Your task to perform on an android device: find which apps use the phone's location Image 0: 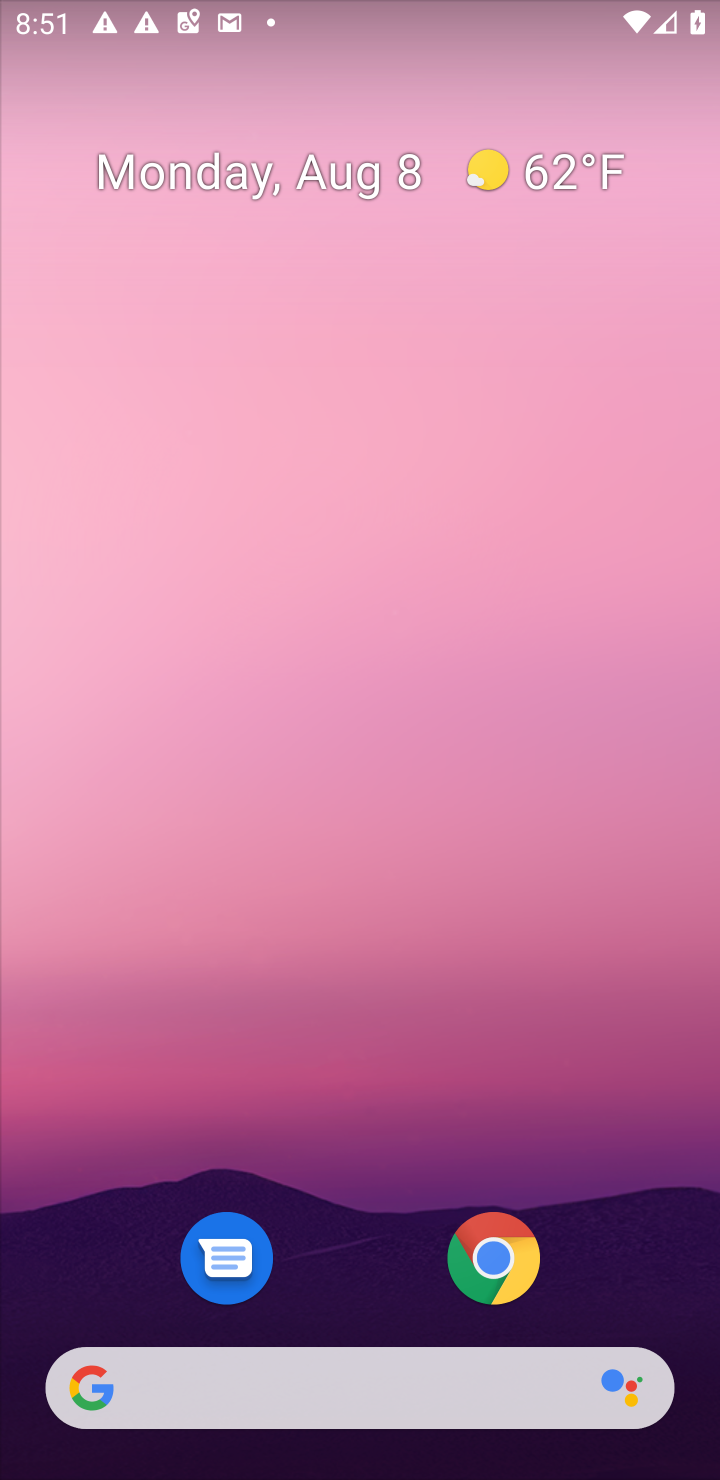
Step 0: drag from (308, 1081) to (464, 246)
Your task to perform on an android device: find which apps use the phone's location Image 1: 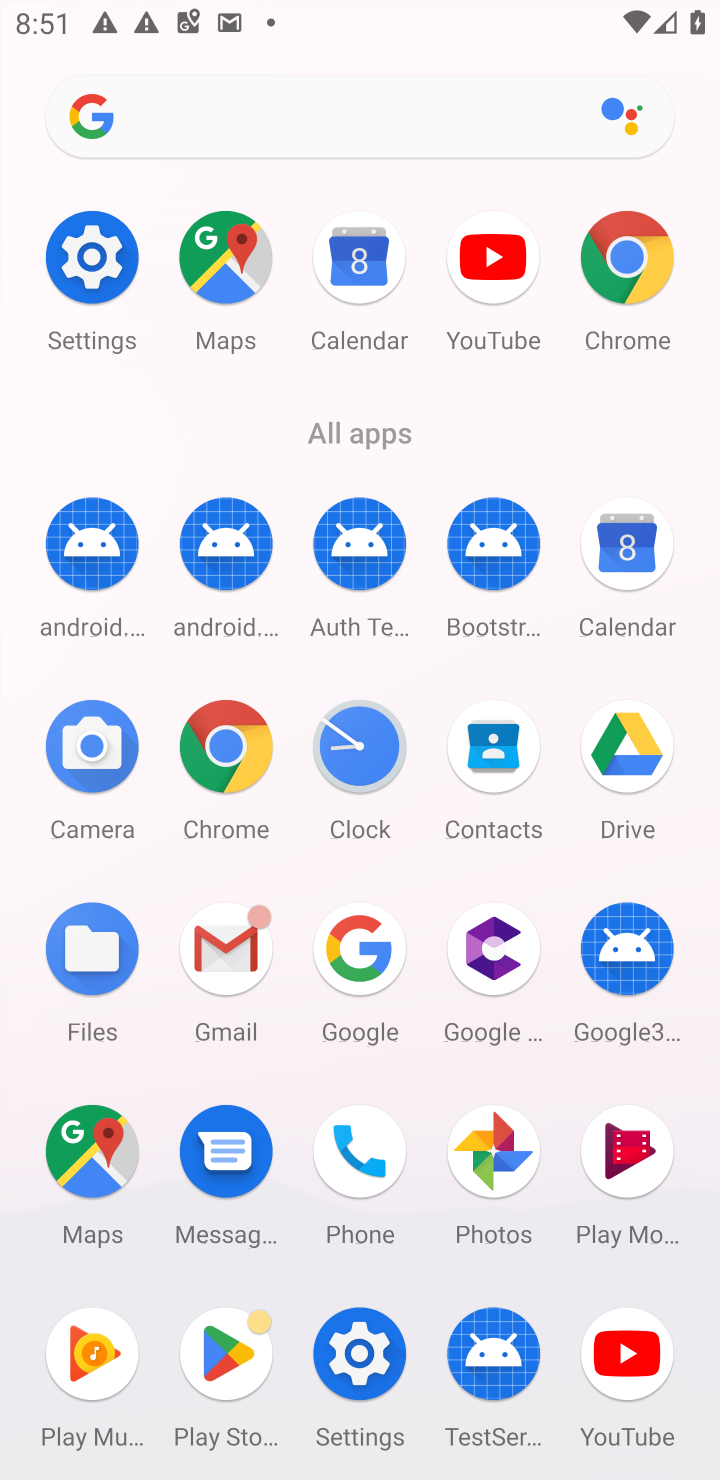
Step 1: click (343, 1340)
Your task to perform on an android device: find which apps use the phone's location Image 2: 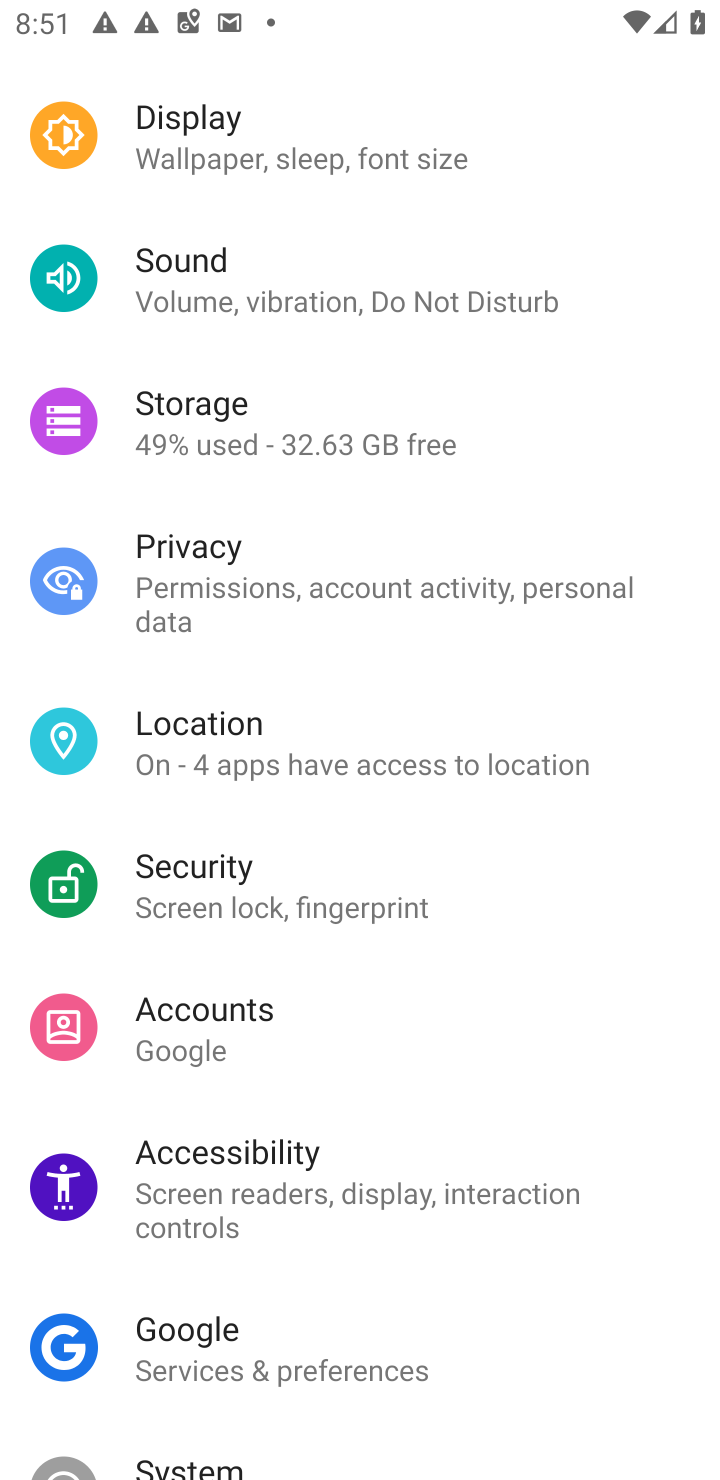
Step 2: click (316, 742)
Your task to perform on an android device: find which apps use the phone's location Image 3: 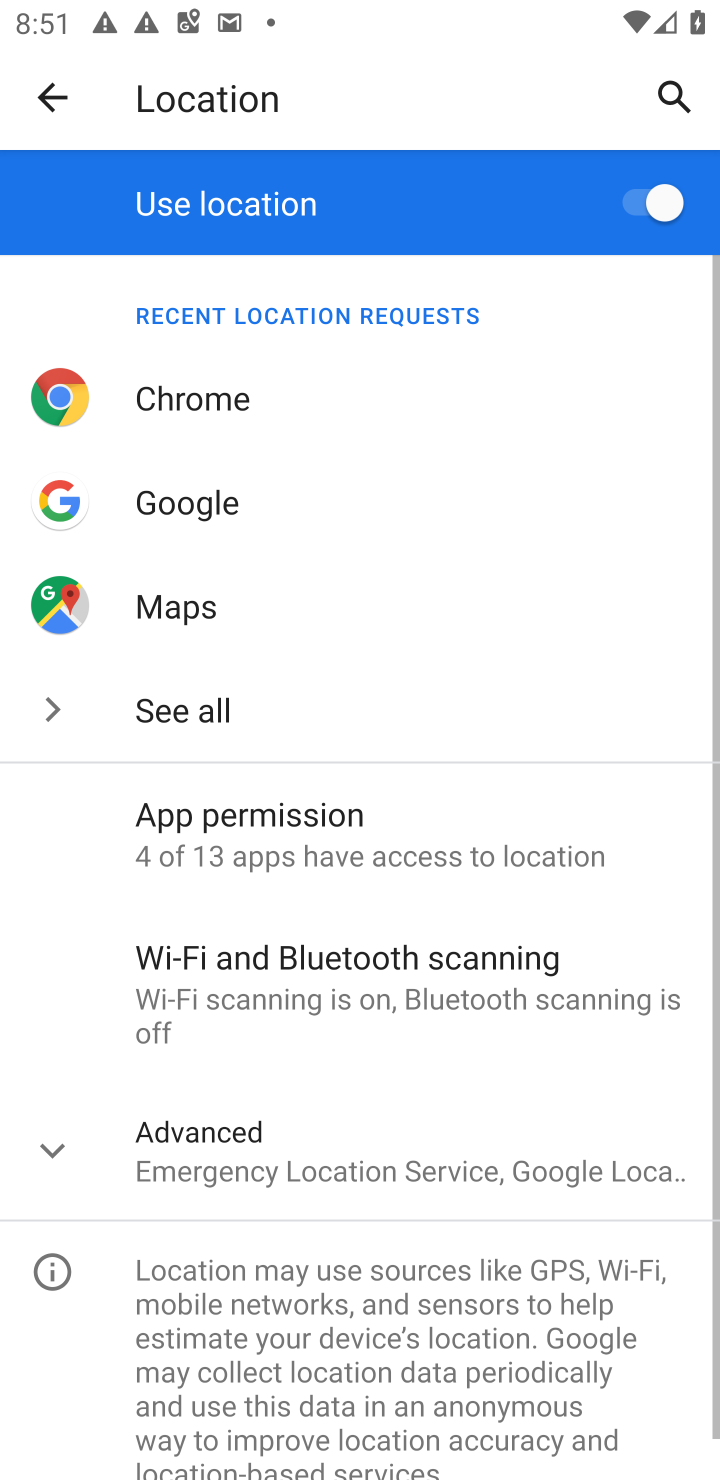
Step 3: task complete